Your task to perform on an android device: Open Android settings Image 0: 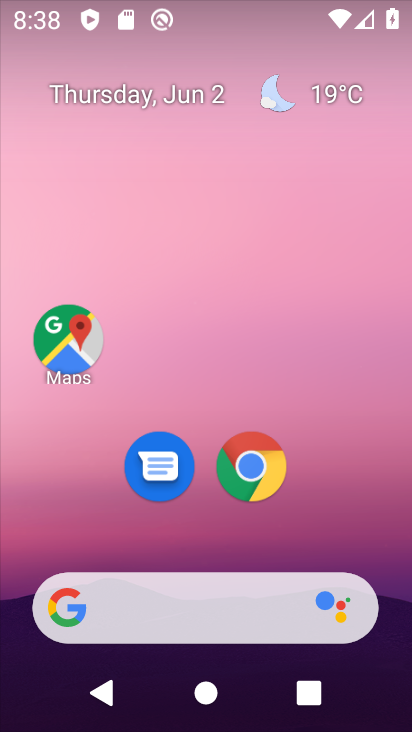
Step 0: drag from (22, 575) to (242, 184)
Your task to perform on an android device: Open Android settings Image 1: 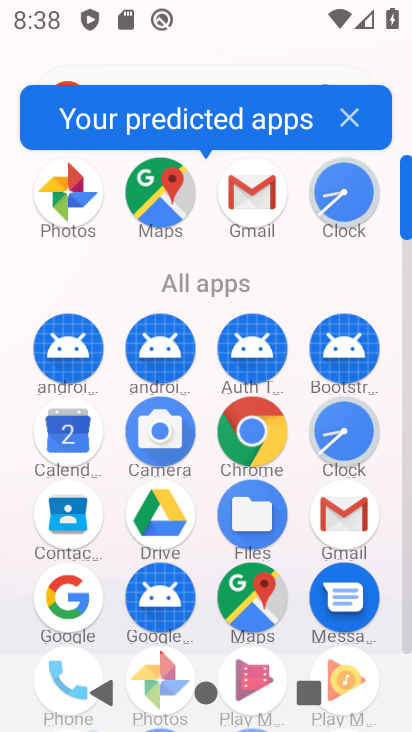
Step 1: drag from (114, 486) to (356, 171)
Your task to perform on an android device: Open Android settings Image 2: 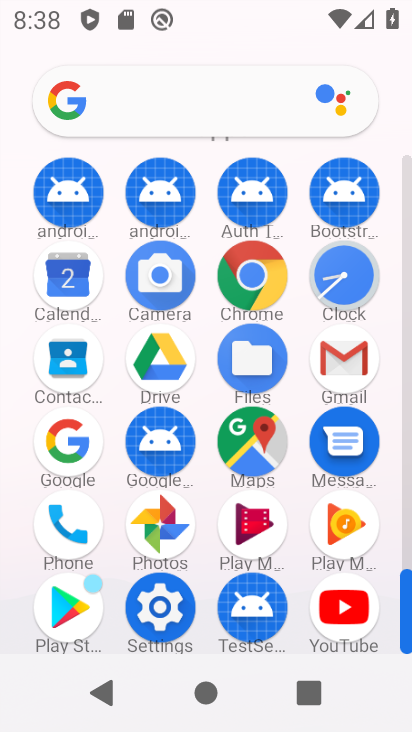
Step 2: click (161, 602)
Your task to perform on an android device: Open Android settings Image 3: 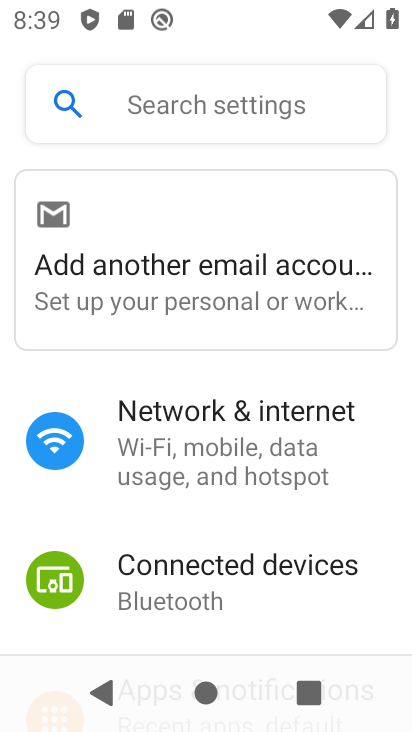
Step 3: drag from (11, 590) to (250, 114)
Your task to perform on an android device: Open Android settings Image 4: 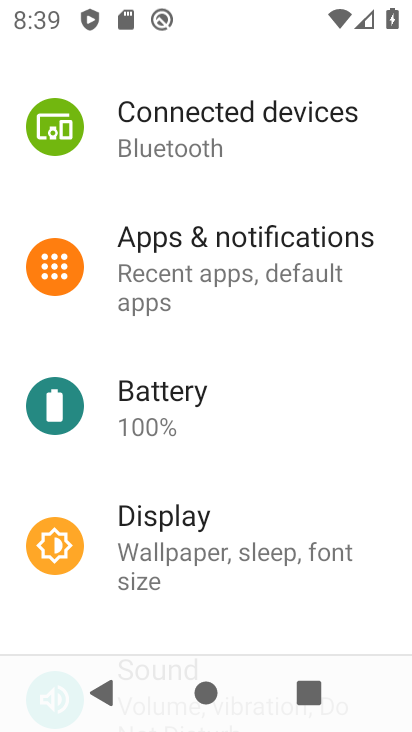
Step 4: drag from (43, 599) to (367, 116)
Your task to perform on an android device: Open Android settings Image 5: 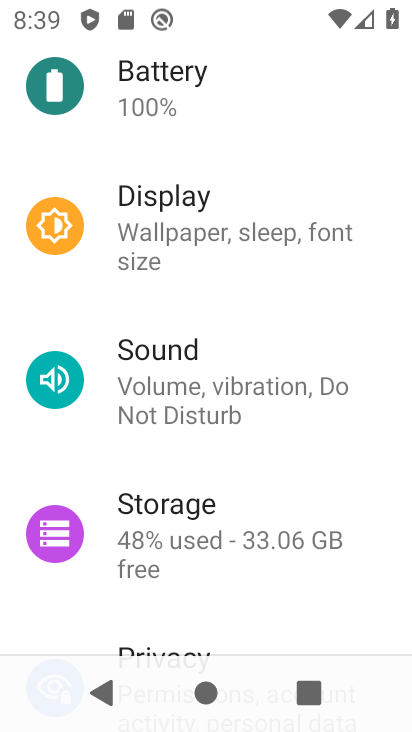
Step 5: drag from (41, 548) to (344, 159)
Your task to perform on an android device: Open Android settings Image 6: 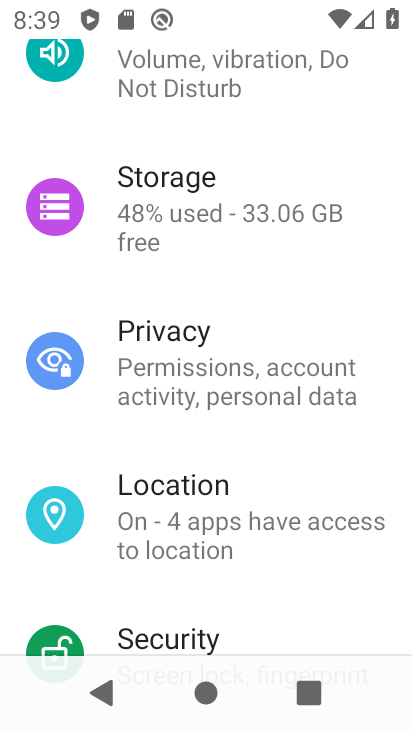
Step 6: drag from (53, 467) to (383, 77)
Your task to perform on an android device: Open Android settings Image 7: 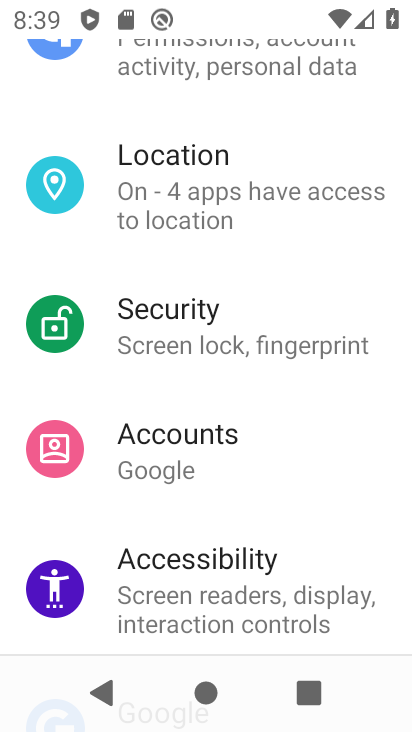
Step 7: drag from (38, 512) to (392, 176)
Your task to perform on an android device: Open Android settings Image 8: 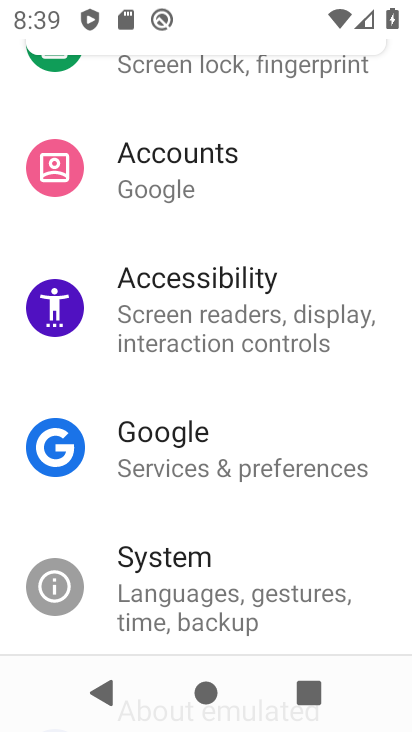
Step 8: drag from (23, 599) to (380, 218)
Your task to perform on an android device: Open Android settings Image 9: 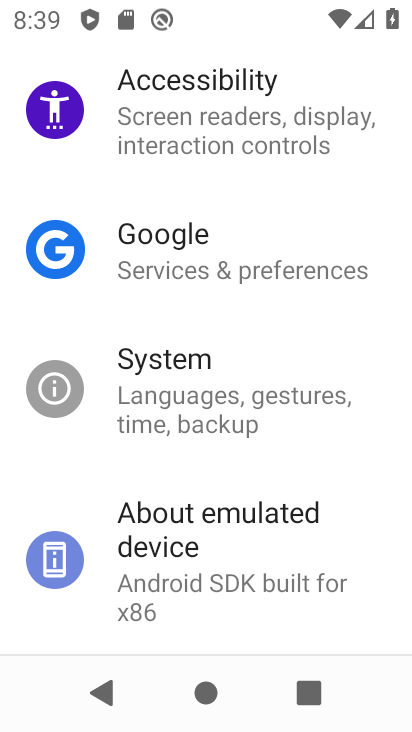
Step 9: click (95, 585)
Your task to perform on an android device: Open Android settings Image 10: 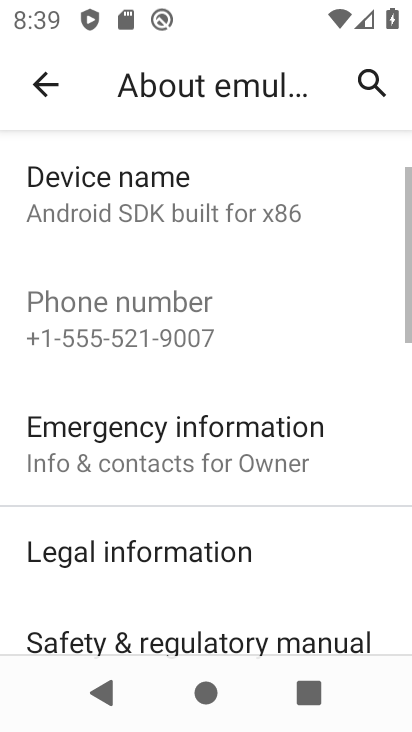
Step 10: task complete